Your task to perform on an android device: What is the news today? Image 0: 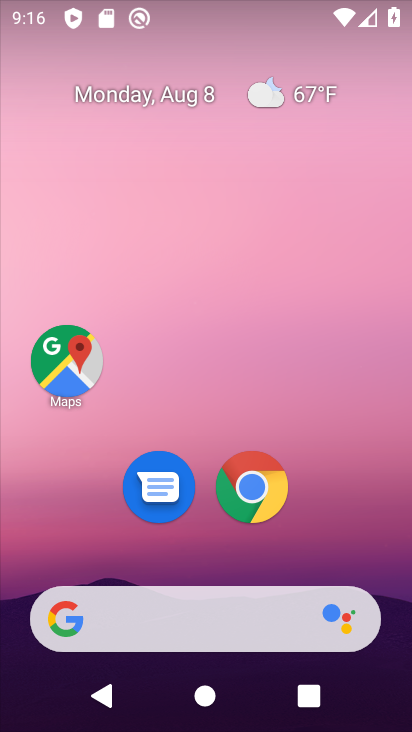
Step 0: drag from (207, 521) to (206, 50)
Your task to perform on an android device: What is the news today? Image 1: 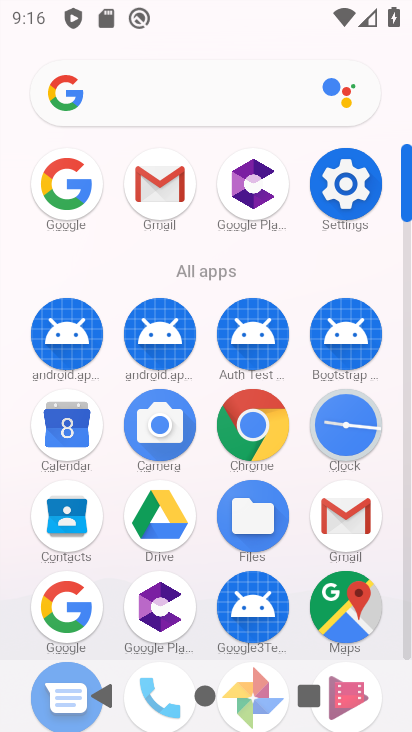
Step 1: task complete